Your task to perform on an android device: Go to display settings Image 0: 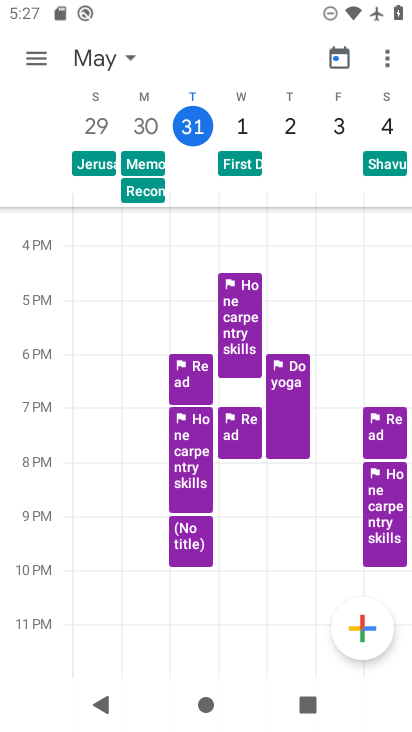
Step 0: drag from (275, 554) to (264, 30)
Your task to perform on an android device: Go to display settings Image 1: 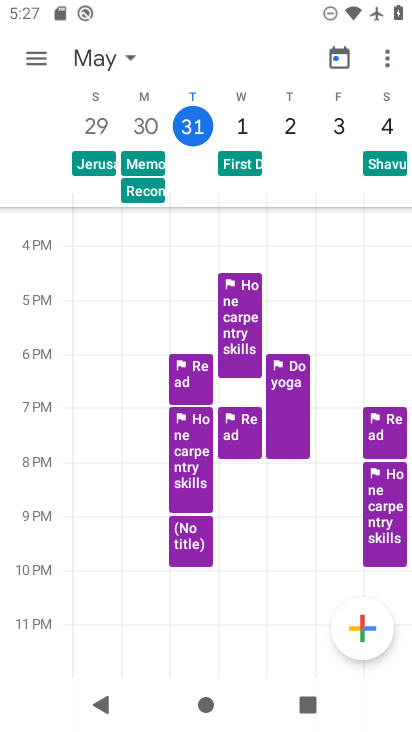
Step 1: press home button
Your task to perform on an android device: Go to display settings Image 2: 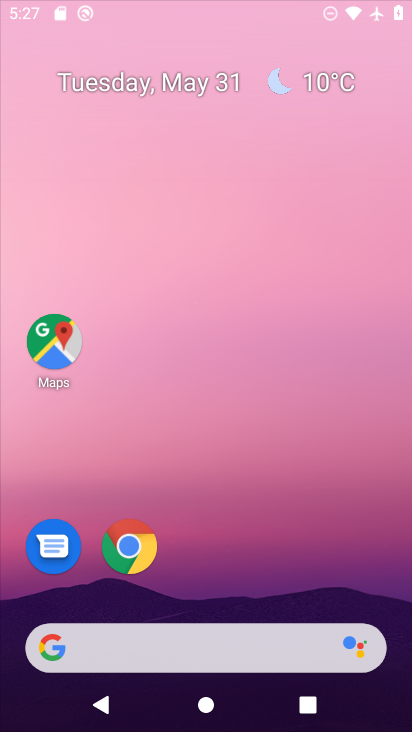
Step 2: drag from (280, 630) to (195, 18)
Your task to perform on an android device: Go to display settings Image 3: 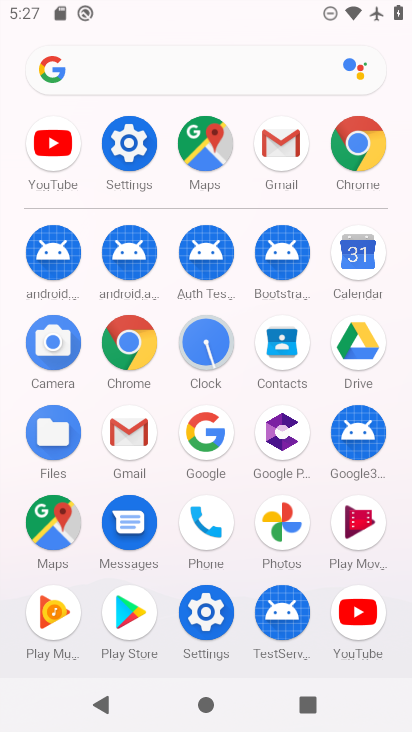
Step 3: click (127, 145)
Your task to perform on an android device: Go to display settings Image 4: 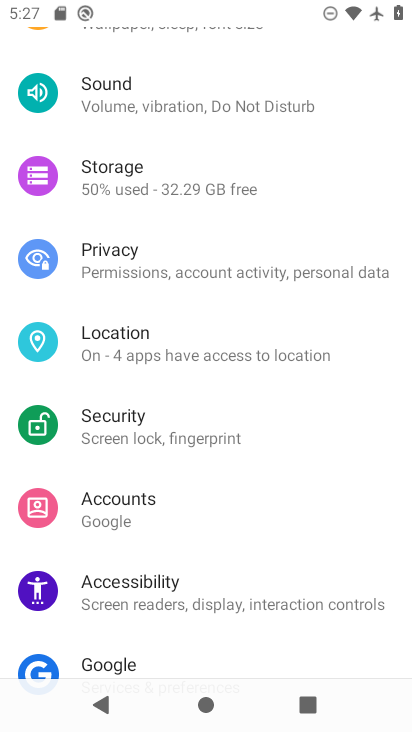
Step 4: drag from (157, 103) to (221, 379)
Your task to perform on an android device: Go to display settings Image 5: 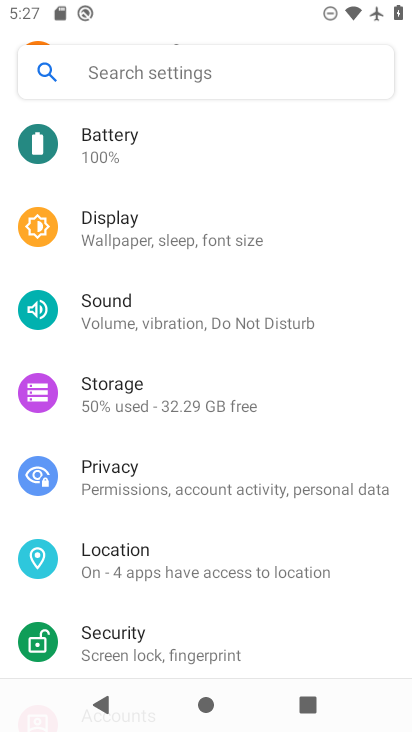
Step 5: click (140, 243)
Your task to perform on an android device: Go to display settings Image 6: 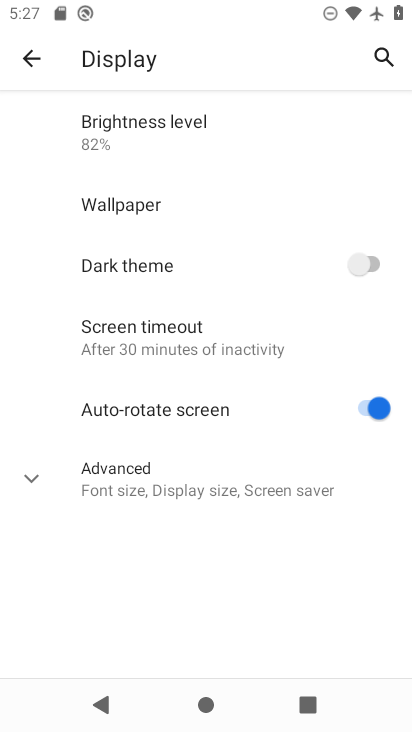
Step 6: task complete